Your task to perform on an android device: check out phone information Image 0: 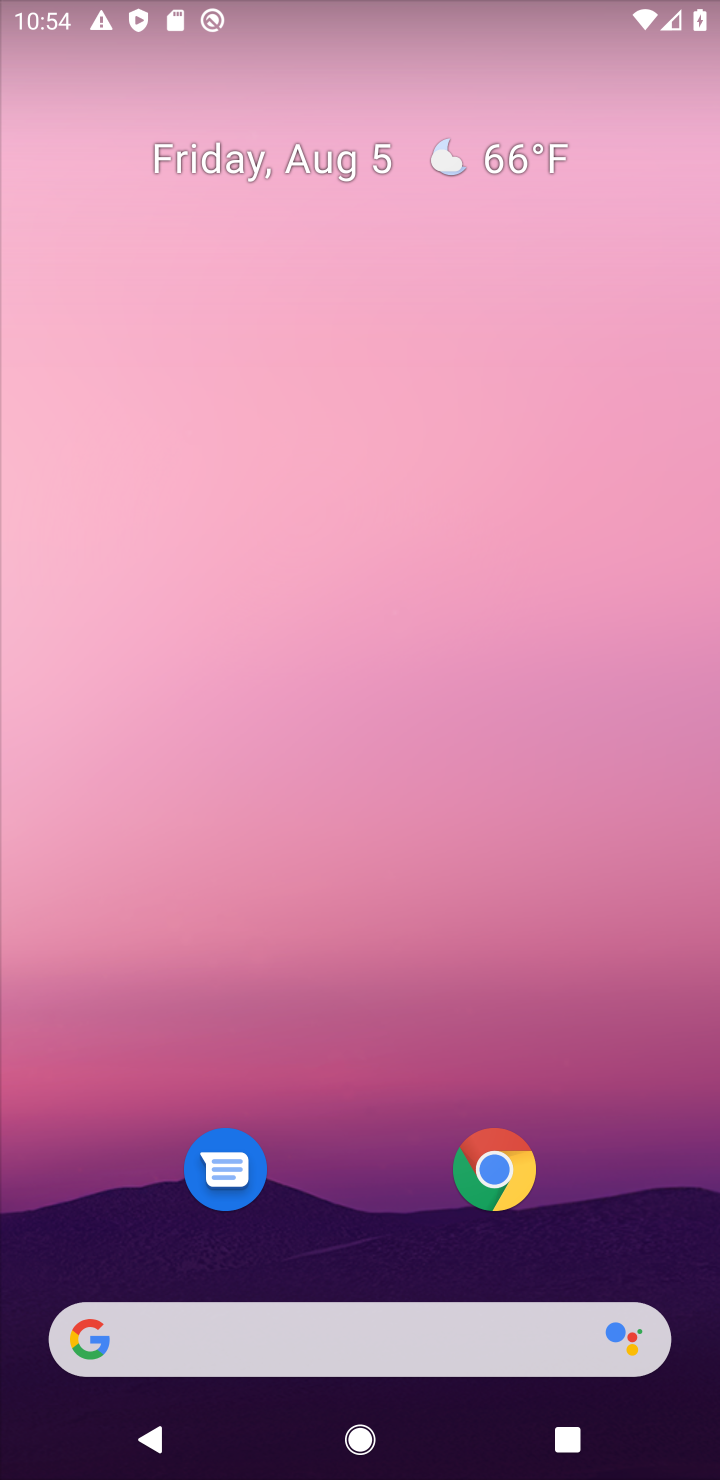
Step 0: press home button
Your task to perform on an android device: check out phone information Image 1: 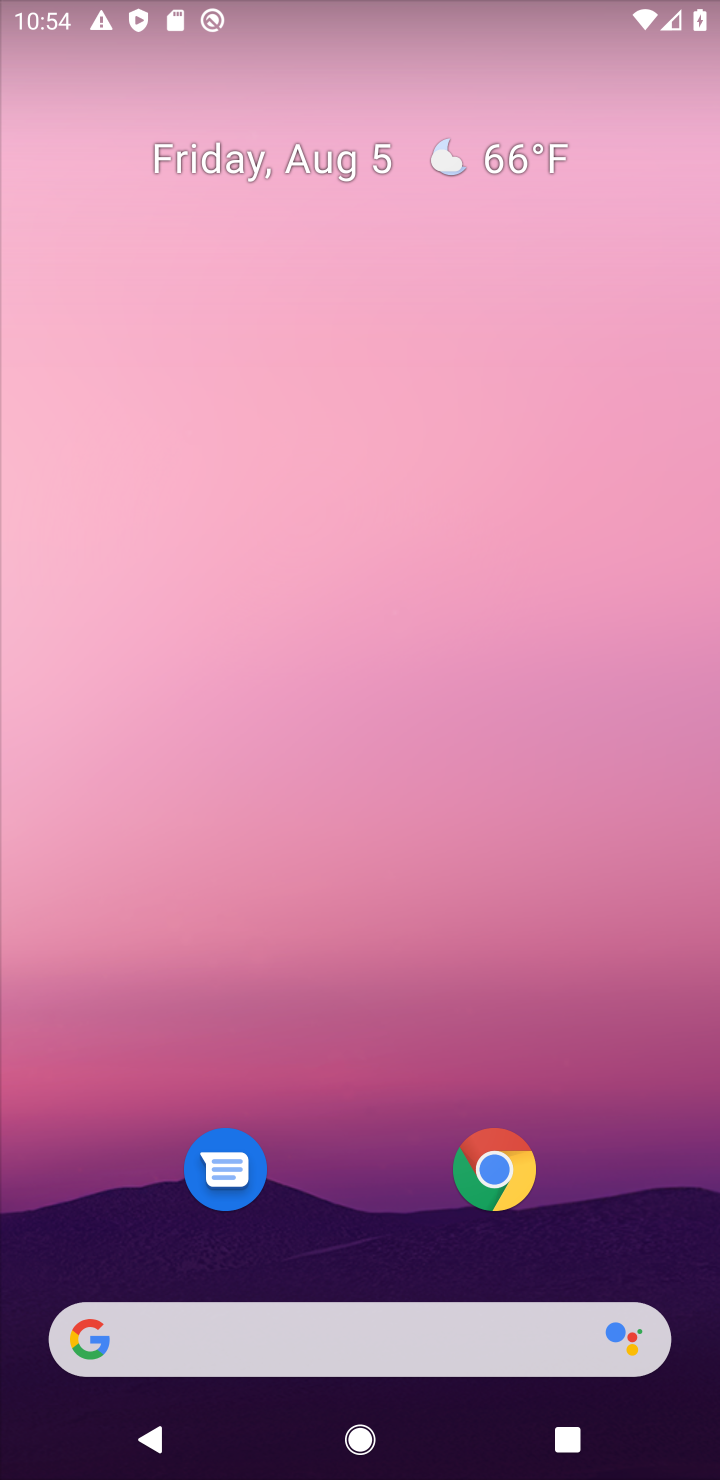
Step 1: drag from (358, 770) to (348, 2)
Your task to perform on an android device: check out phone information Image 2: 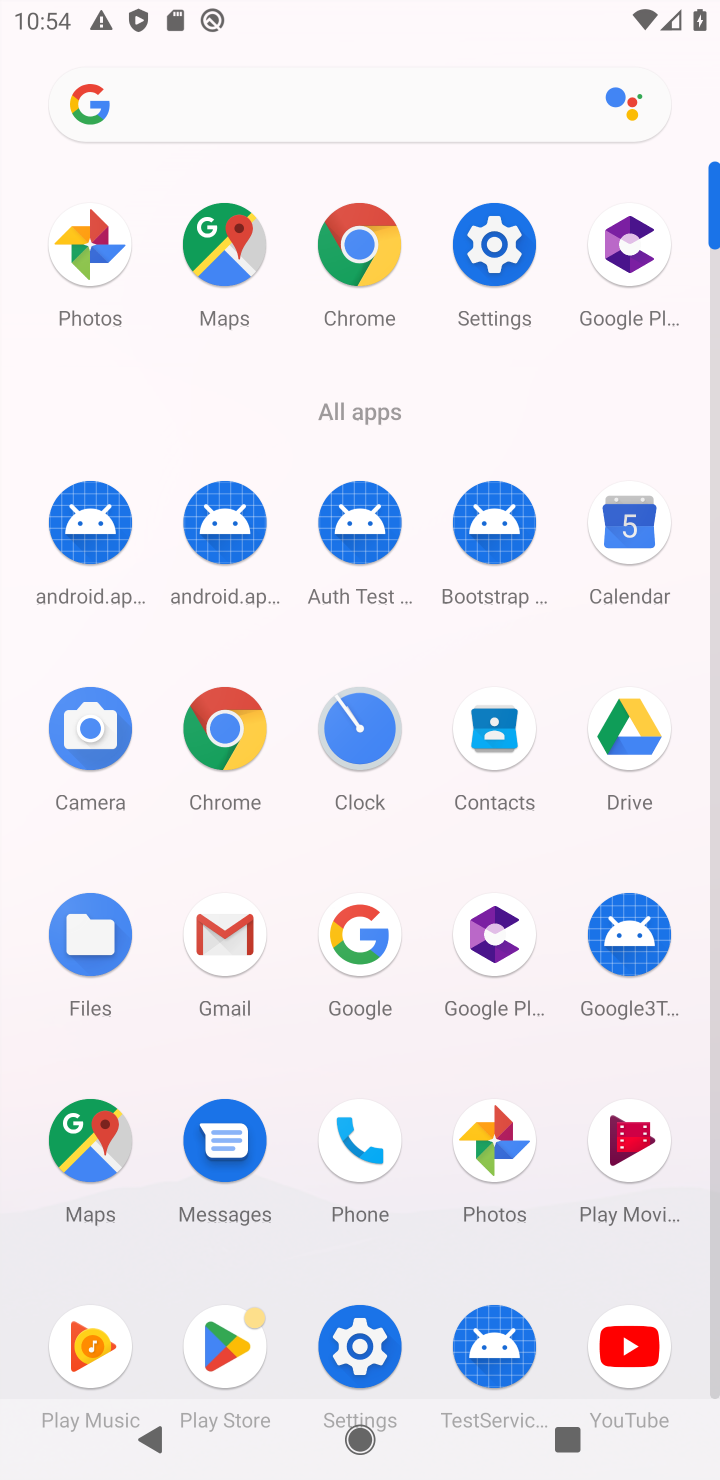
Step 2: click (354, 1317)
Your task to perform on an android device: check out phone information Image 3: 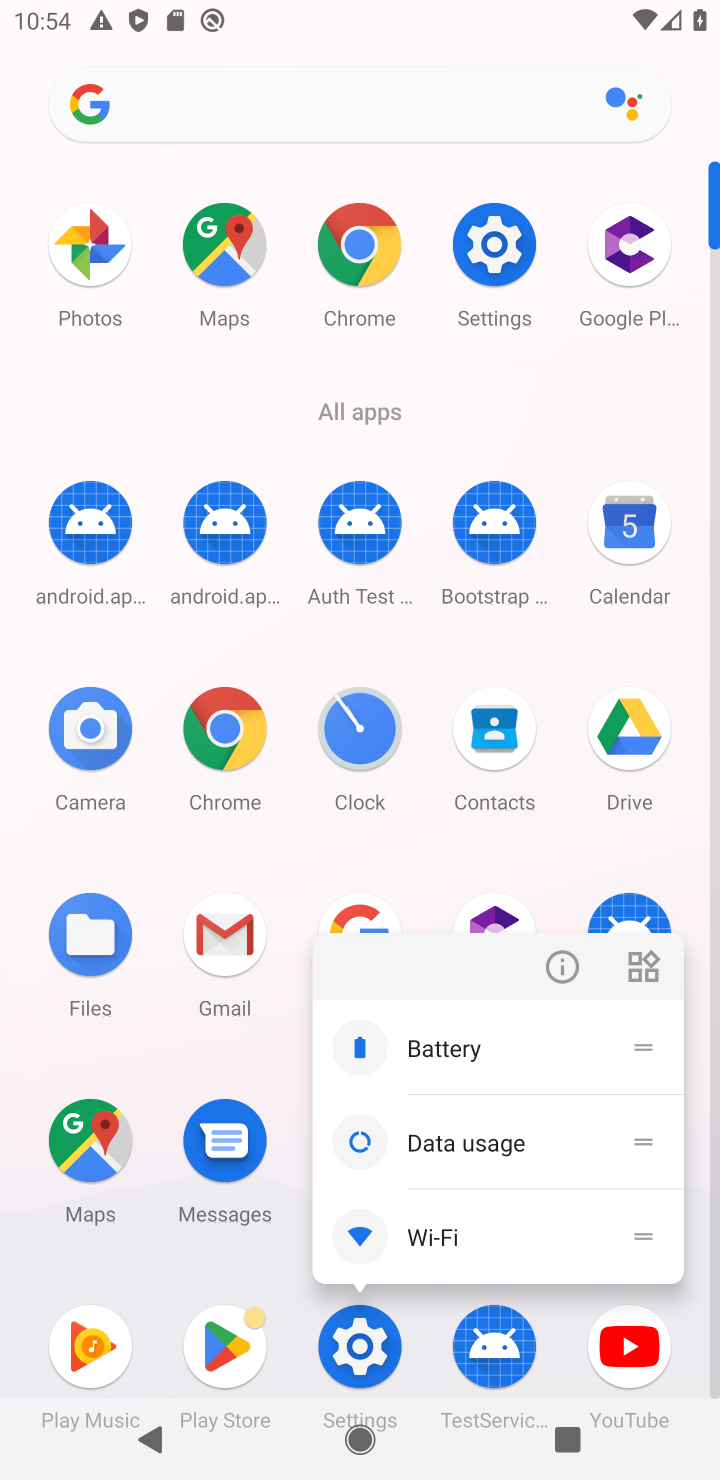
Step 3: click (356, 1336)
Your task to perform on an android device: check out phone information Image 4: 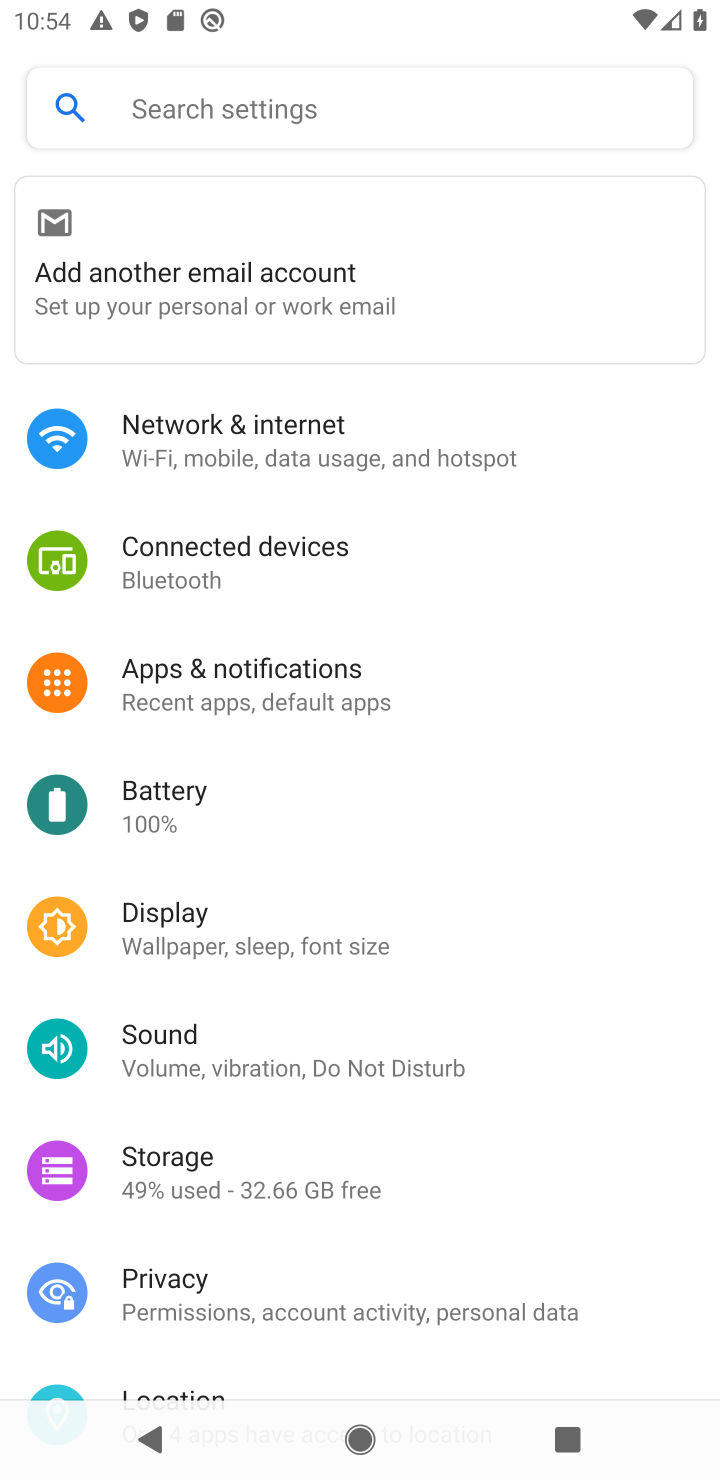
Step 4: drag from (281, 1249) to (395, 464)
Your task to perform on an android device: check out phone information Image 5: 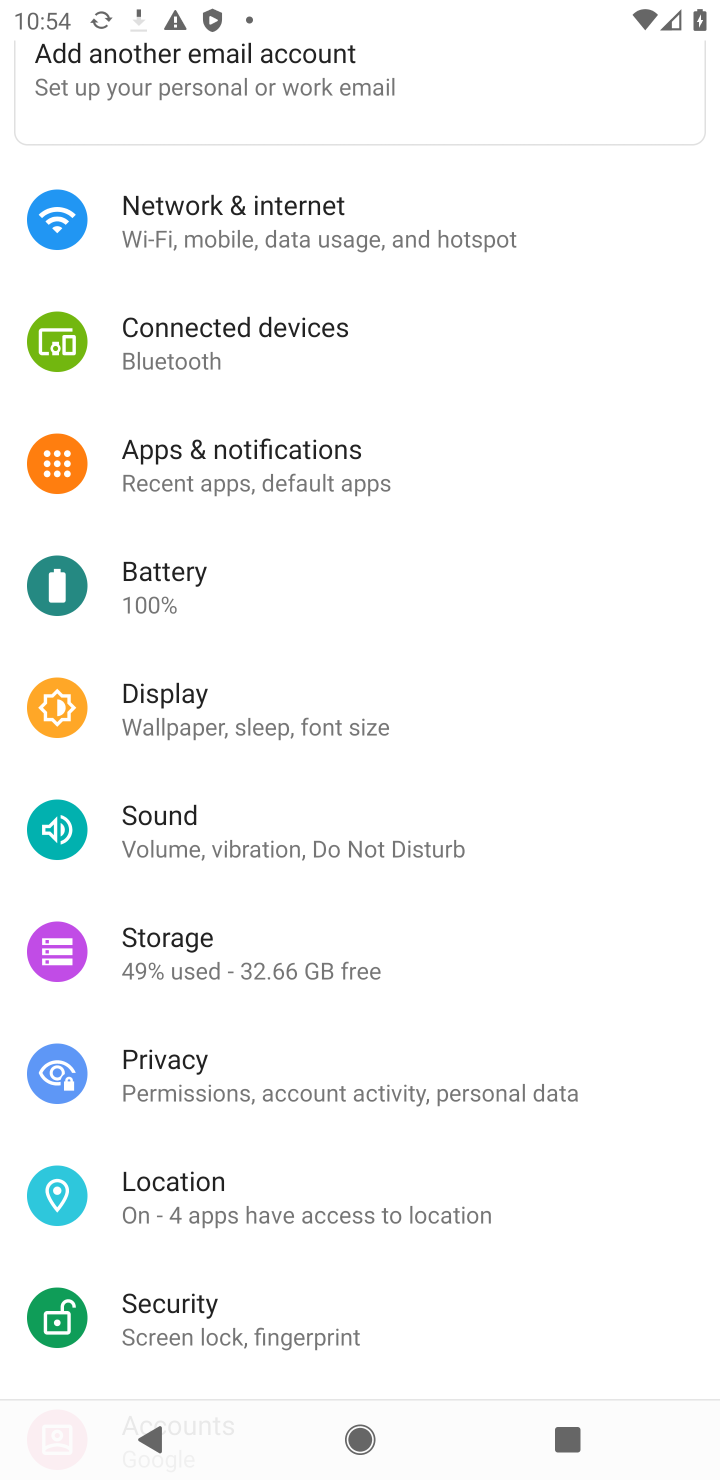
Step 5: drag from (251, 1226) to (393, 267)
Your task to perform on an android device: check out phone information Image 6: 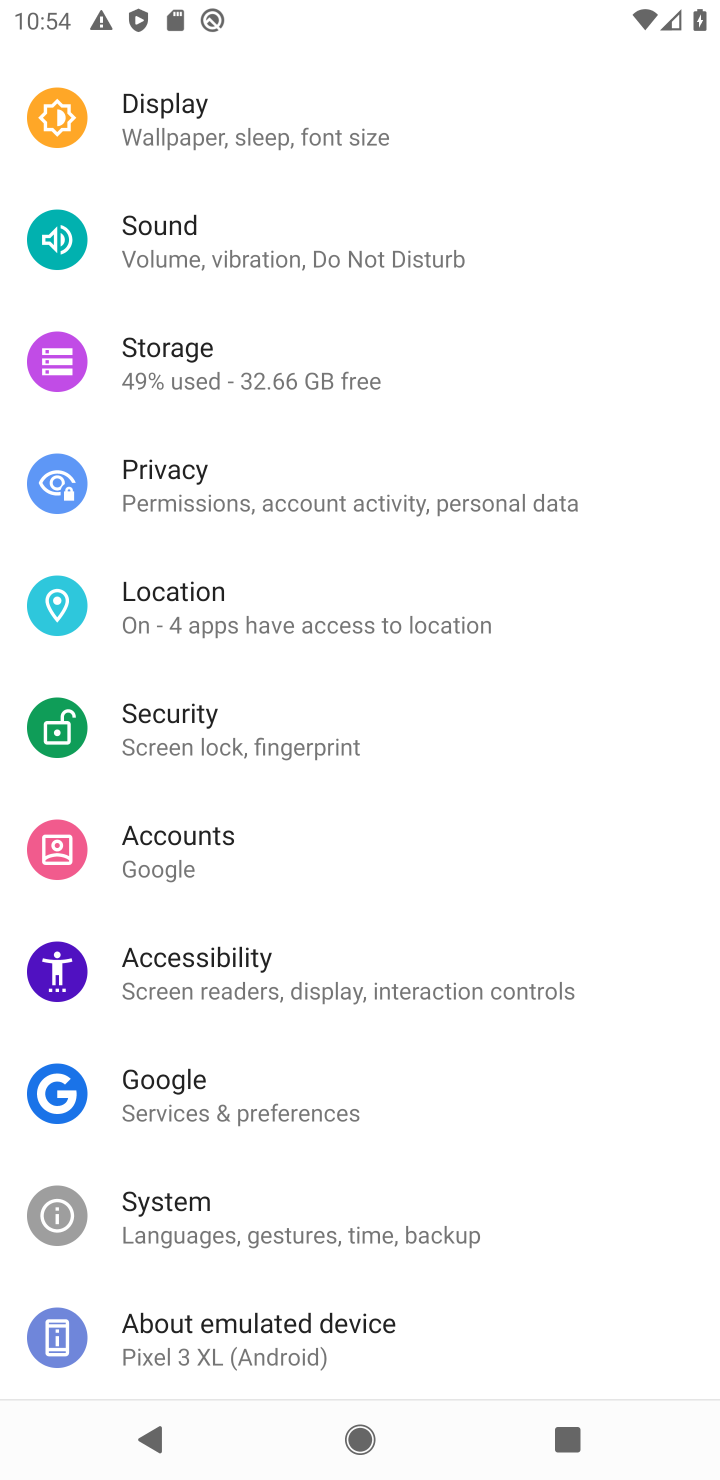
Step 6: click (214, 1344)
Your task to perform on an android device: check out phone information Image 7: 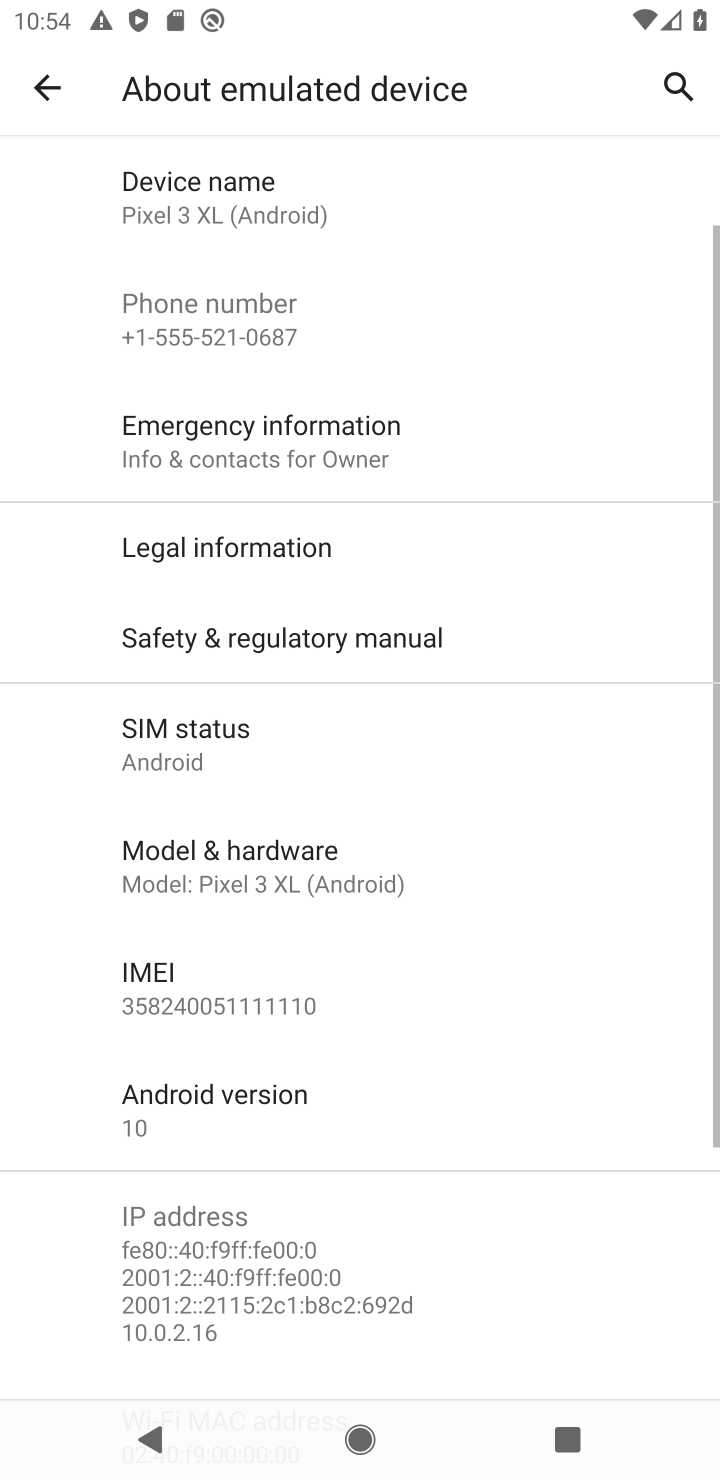
Step 7: task complete